Your task to perform on an android device: delete browsing data in the chrome app Image 0: 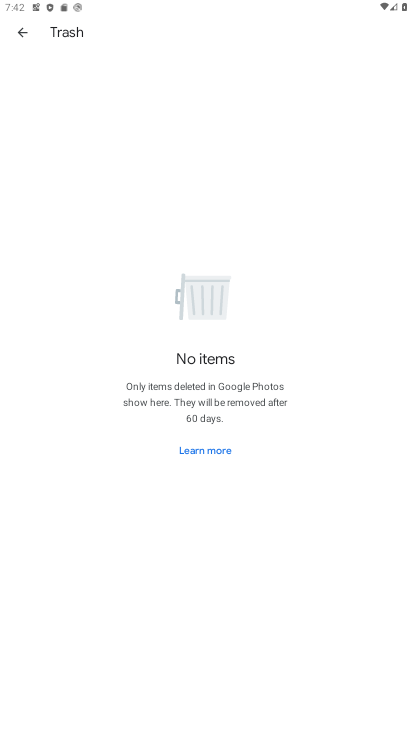
Step 0: press home button
Your task to perform on an android device: delete browsing data in the chrome app Image 1: 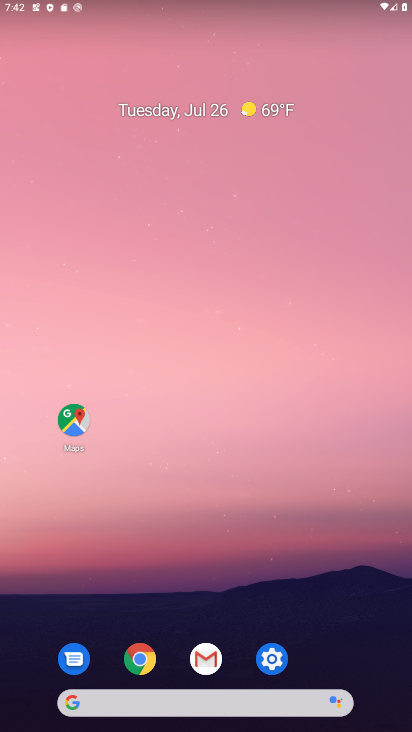
Step 1: click (147, 667)
Your task to perform on an android device: delete browsing data in the chrome app Image 2: 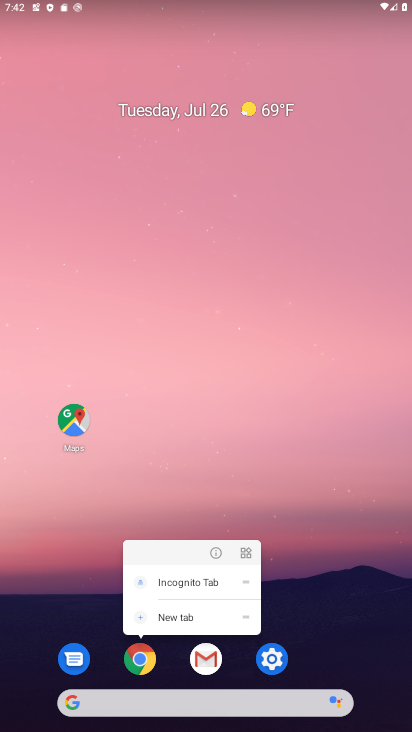
Step 2: click (137, 664)
Your task to perform on an android device: delete browsing data in the chrome app Image 3: 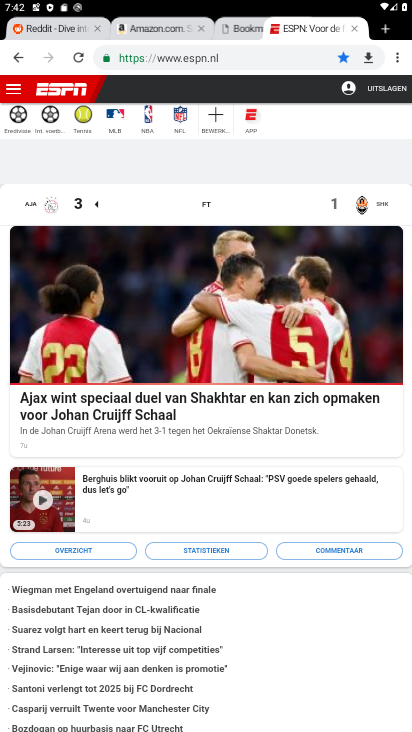
Step 3: click (396, 60)
Your task to perform on an android device: delete browsing data in the chrome app Image 4: 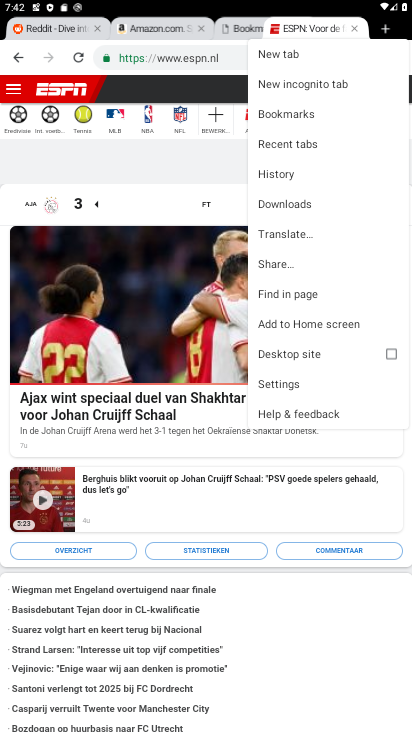
Step 4: click (293, 176)
Your task to perform on an android device: delete browsing data in the chrome app Image 5: 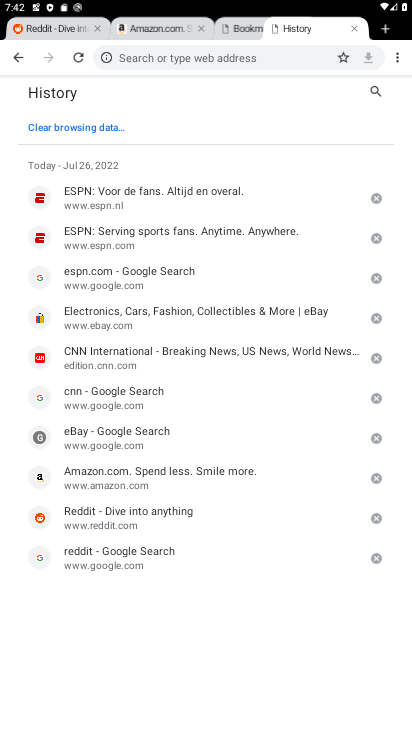
Step 5: click (72, 126)
Your task to perform on an android device: delete browsing data in the chrome app Image 6: 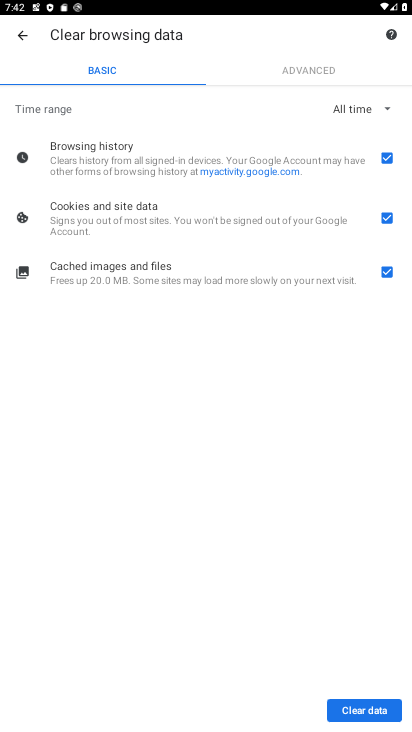
Step 6: click (377, 704)
Your task to perform on an android device: delete browsing data in the chrome app Image 7: 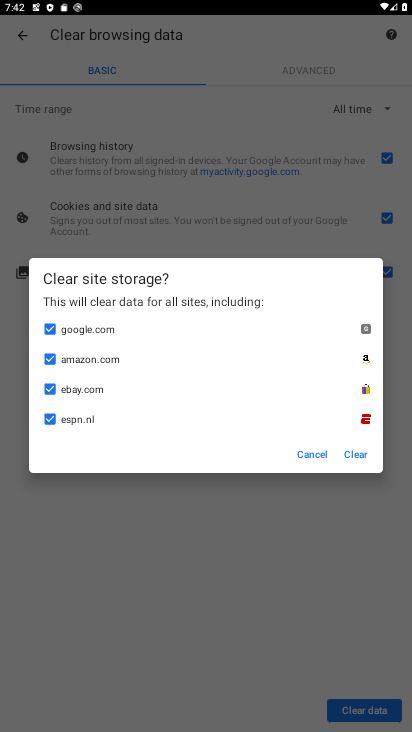
Step 7: click (355, 452)
Your task to perform on an android device: delete browsing data in the chrome app Image 8: 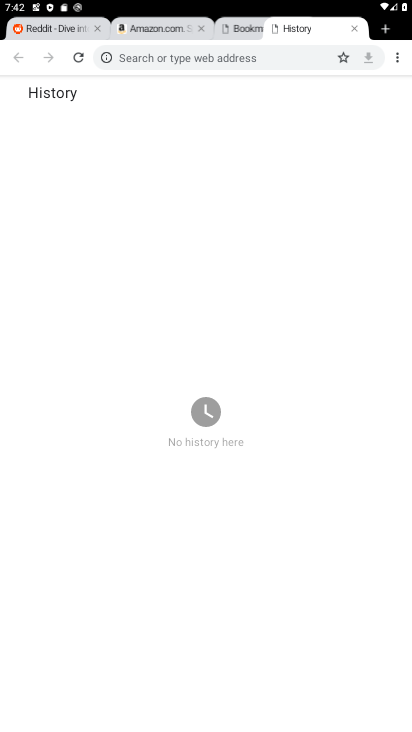
Step 8: task complete